Your task to perform on an android device: When is my next meeting? Image 0: 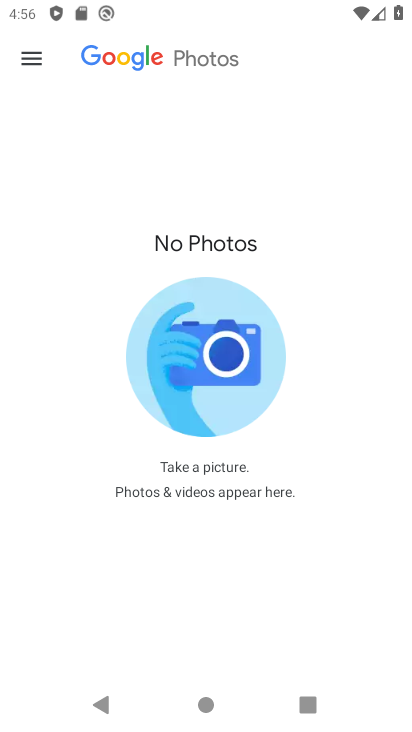
Step 0: press home button
Your task to perform on an android device: When is my next meeting? Image 1: 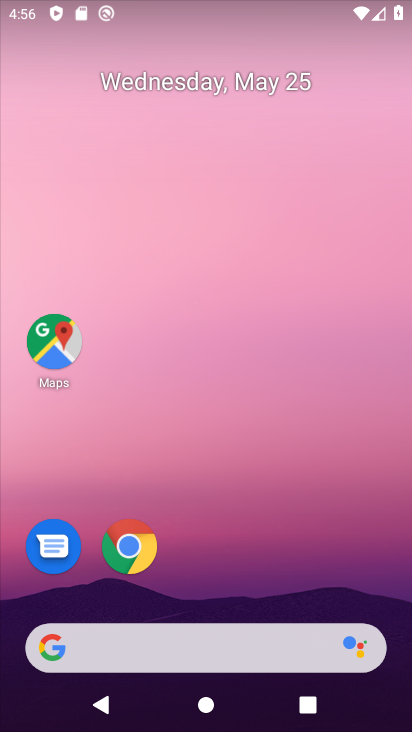
Step 1: drag from (163, 694) to (179, 113)
Your task to perform on an android device: When is my next meeting? Image 2: 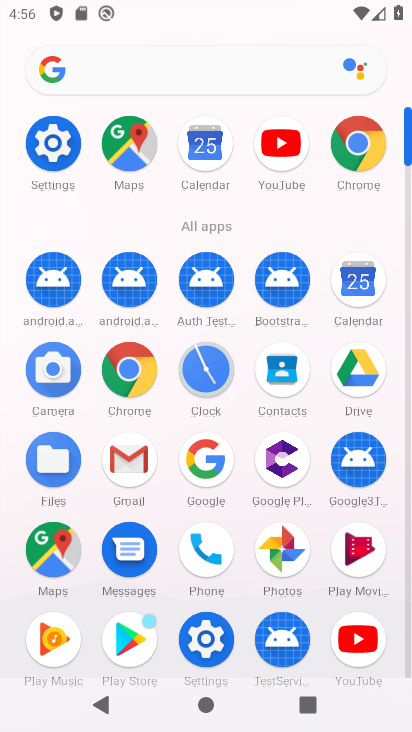
Step 2: click (372, 277)
Your task to perform on an android device: When is my next meeting? Image 3: 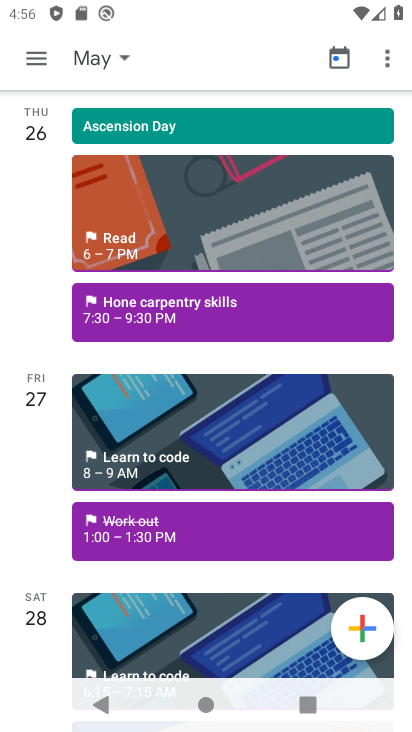
Step 3: task complete